Your task to perform on an android device: read, delete, or share a saved page in the chrome app Image 0: 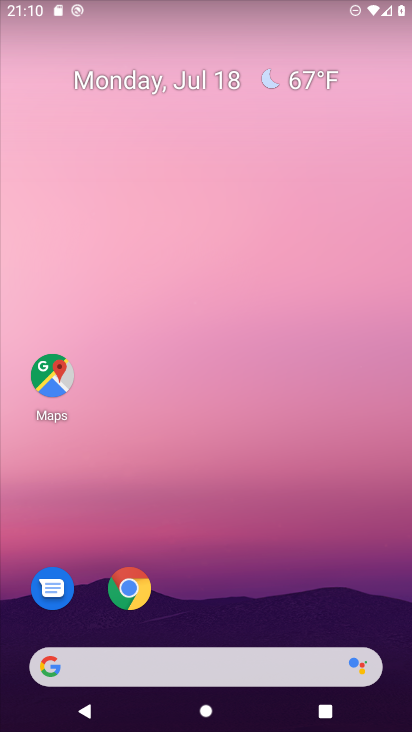
Step 0: click (127, 589)
Your task to perform on an android device: read, delete, or share a saved page in the chrome app Image 1: 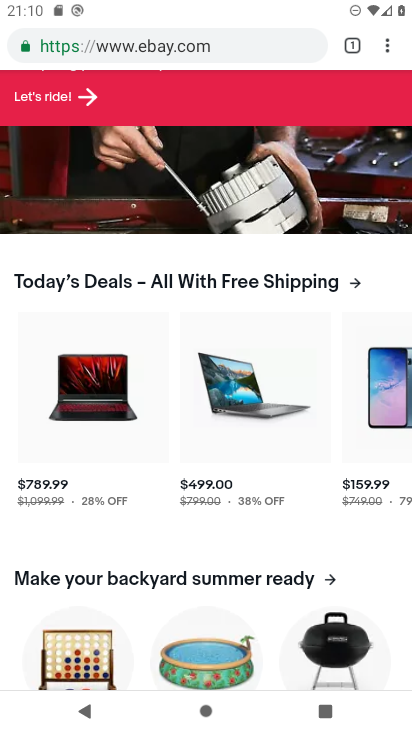
Step 1: click (386, 49)
Your task to perform on an android device: read, delete, or share a saved page in the chrome app Image 2: 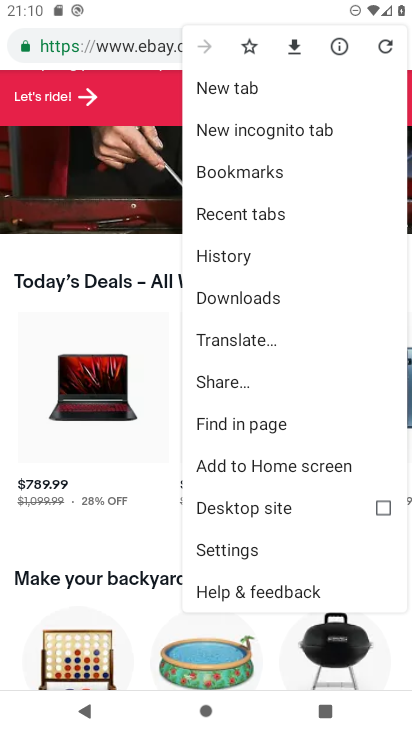
Step 2: click (226, 293)
Your task to perform on an android device: read, delete, or share a saved page in the chrome app Image 3: 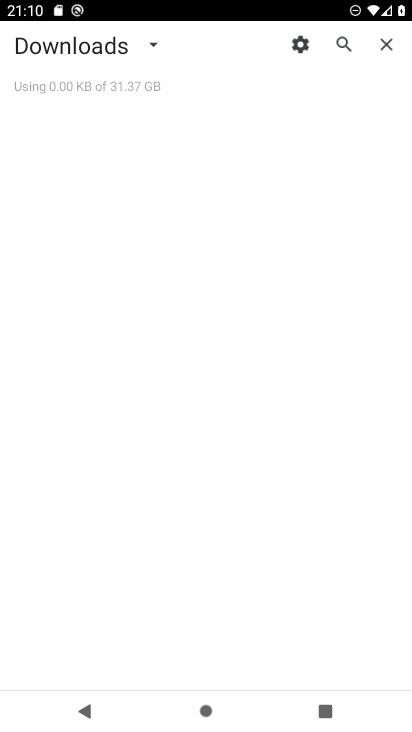
Step 3: click (150, 41)
Your task to perform on an android device: read, delete, or share a saved page in the chrome app Image 4: 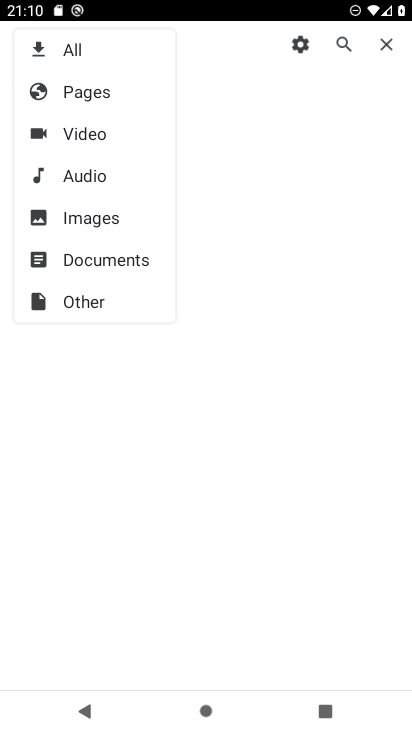
Step 4: click (97, 85)
Your task to perform on an android device: read, delete, or share a saved page in the chrome app Image 5: 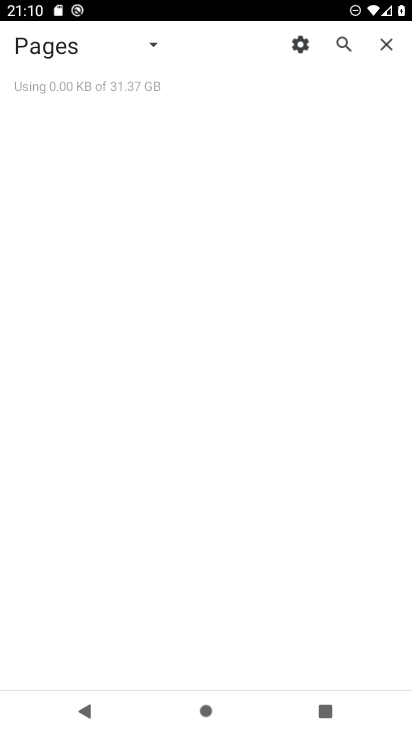
Step 5: task complete